Your task to perform on an android device: Search for the best rated electric lawnmower on Home Depot Image 0: 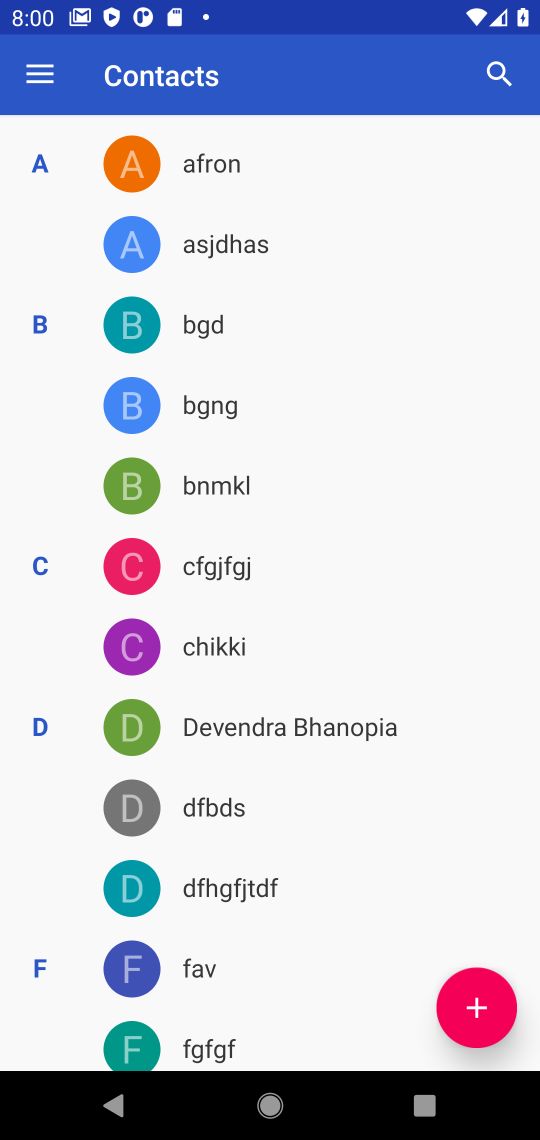
Step 0: press home button
Your task to perform on an android device: Search for the best rated electric lawnmower on Home Depot Image 1: 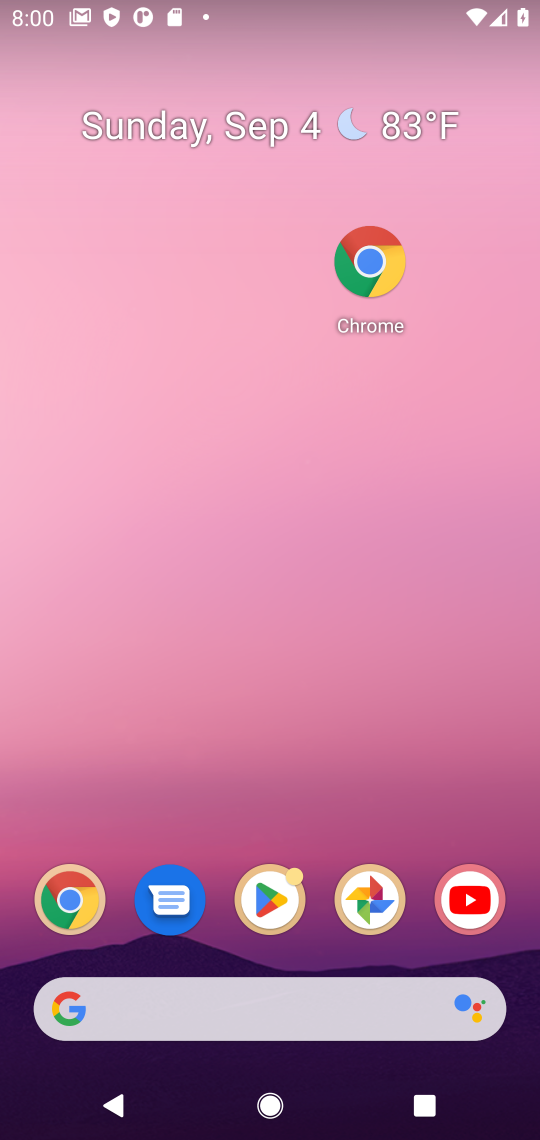
Step 1: drag from (296, 664) to (236, 272)
Your task to perform on an android device: Search for the best rated electric lawnmower on Home Depot Image 2: 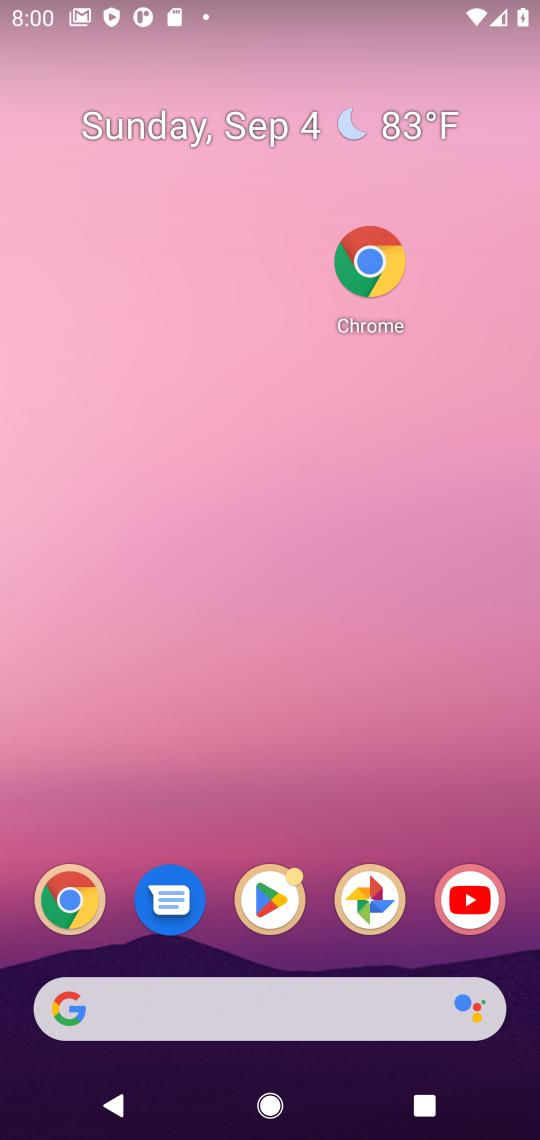
Step 2: drag from (266, 648) to (210, 278)
Your task to perform on an android device: Search for the best rated electric lawnmower on Home Depot Image 3: 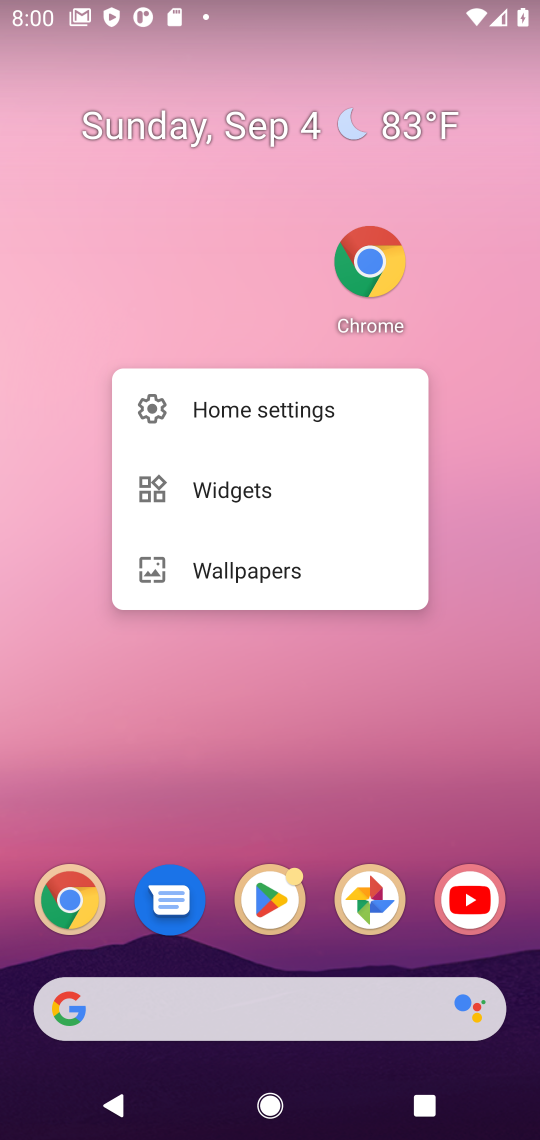
Step 3: click (316, 704)
Your task to perform on an android device: Search for the best rated electric lawnmower on Home Depot Image 4: 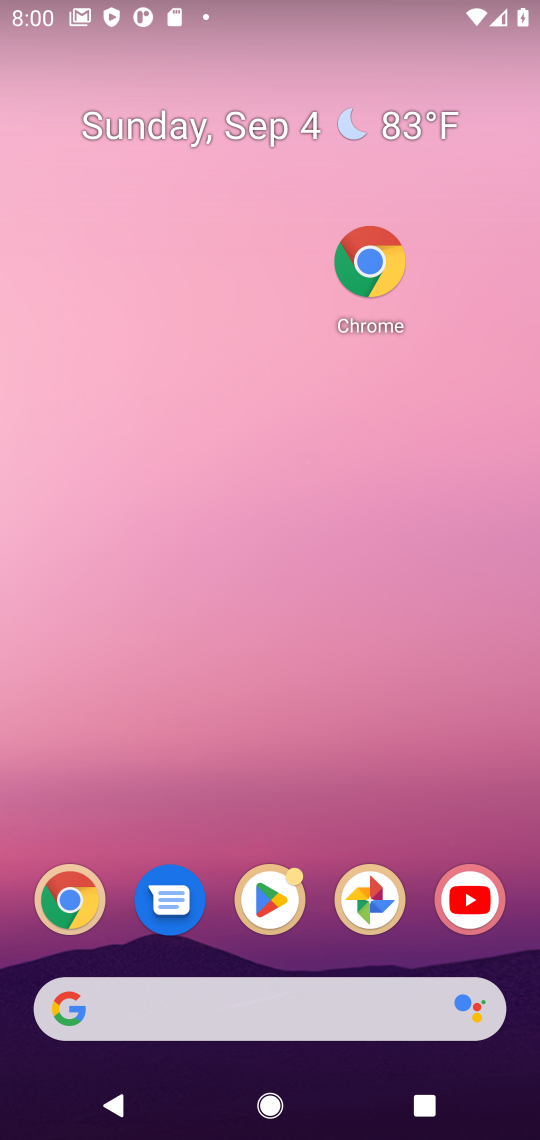
Step 4: click (126, 100)
Your task to perform on an android device: Search for the best rated electric lawnmower on Home Depot Image 5: 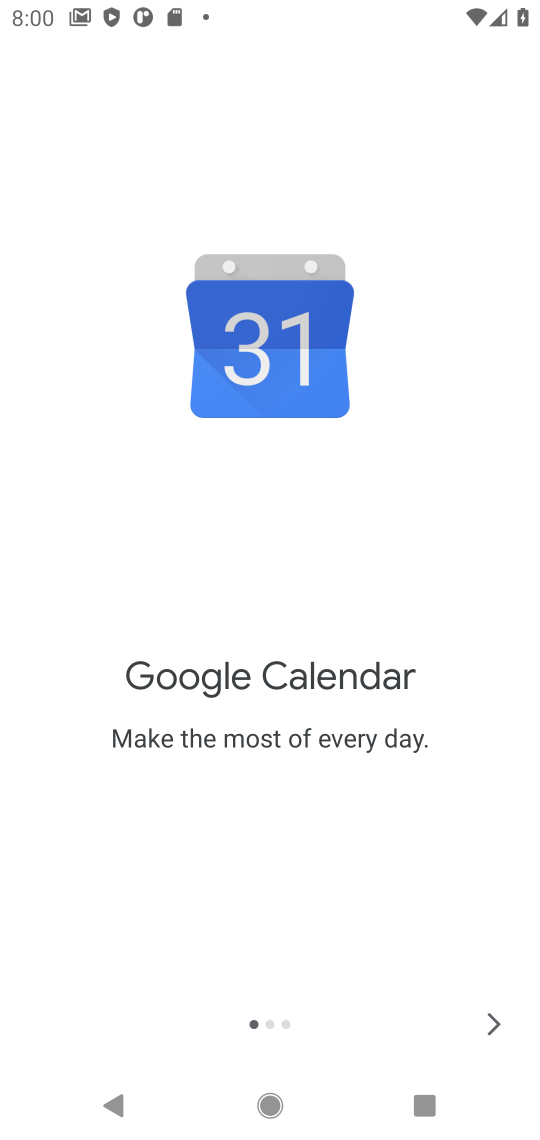
Step 5: press home button
Your task to perform on an android device: Search for the best rated electric lawnmower on Home Depot Image 6: 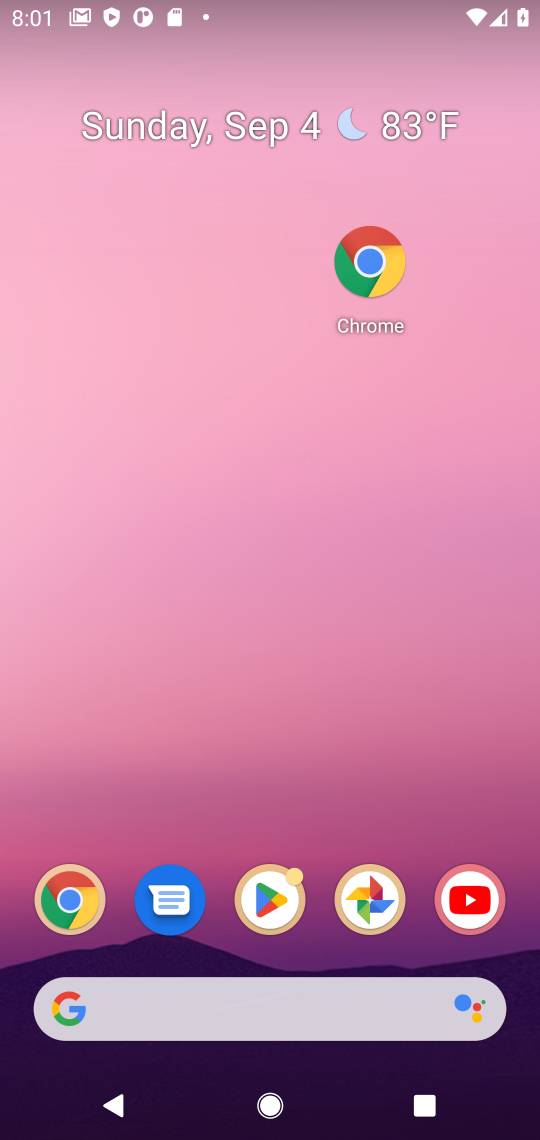
Step 6: click (374, 262)
Your task to perform on an android device: Search for the best rated electric lawnmower on Home Depot Image 7: 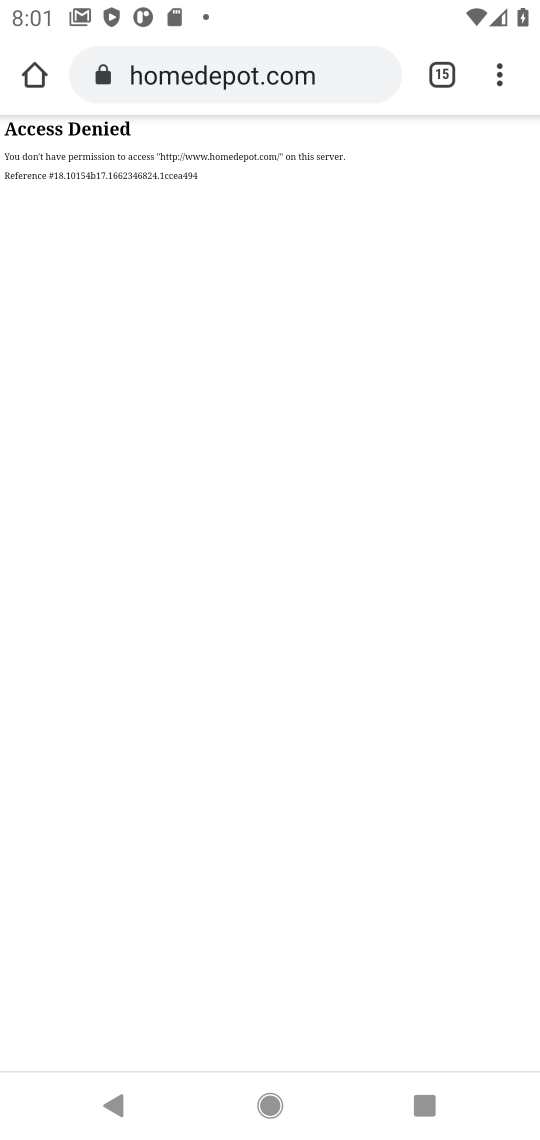
Step 7: click (446, 70)
Your task to perform on an android device: Search for the best rated electric lawnmower on Home Depot Image 8: 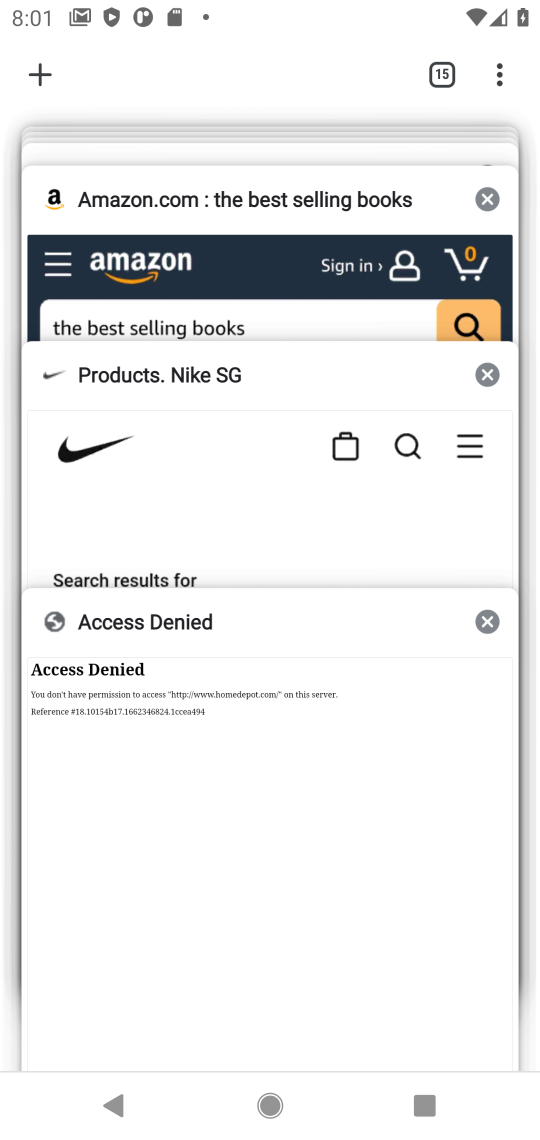
Step 8: click (22, 54)
Your task to perform on an android device: Search for the best rated electric lawnmower on Home Depot Image 9: 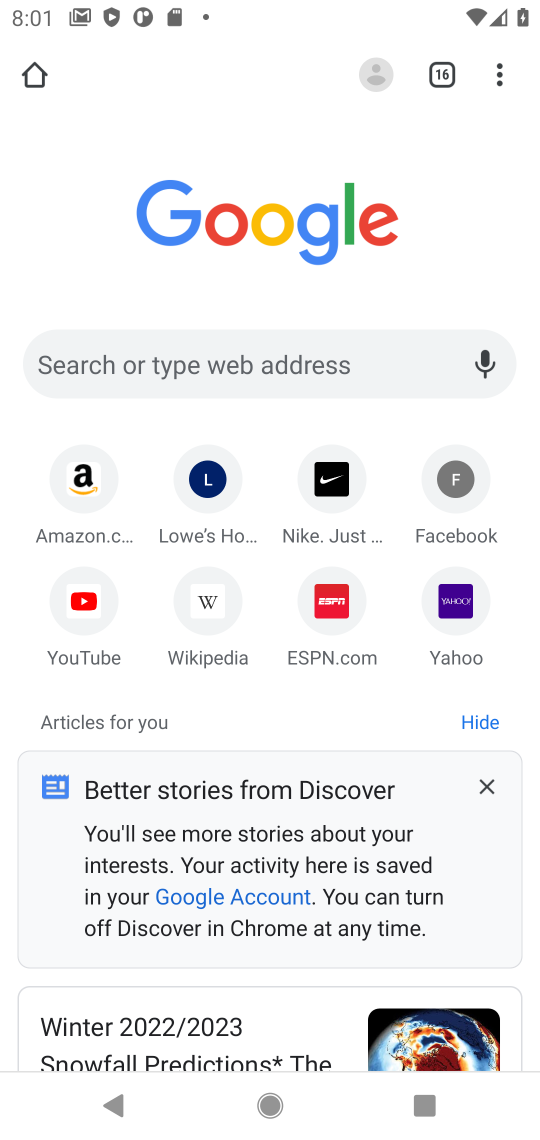
Step 9: click (264, 386)
Your task to perform on an android device: Search for the best rated electric lawnmower on Home Depot Image 10: 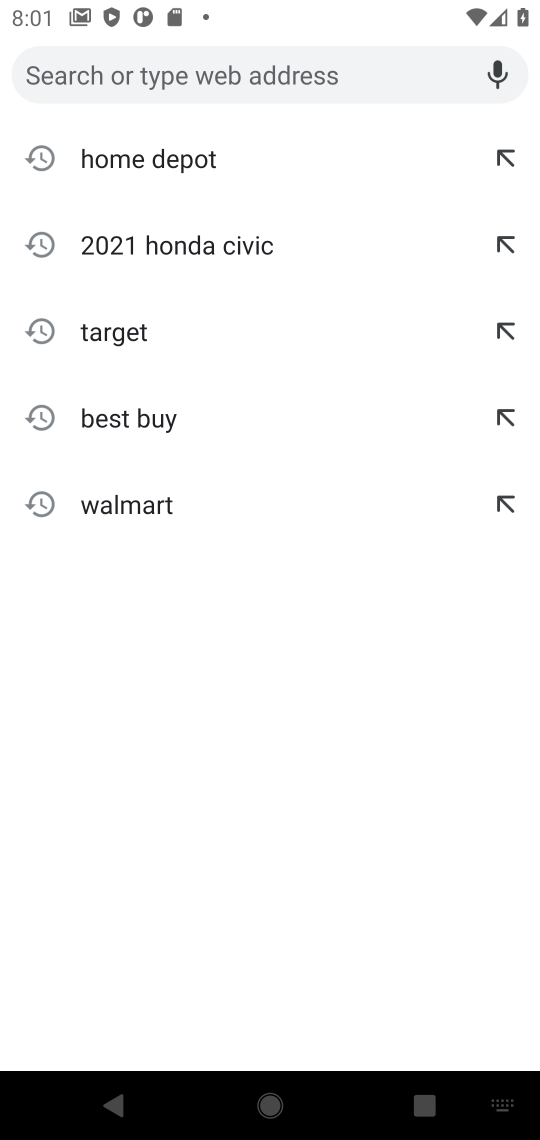
Step 10: click (121, 150)
Your task to perform on an android device: Search for the best rated electric lawnmower on Home Depot Image 11: 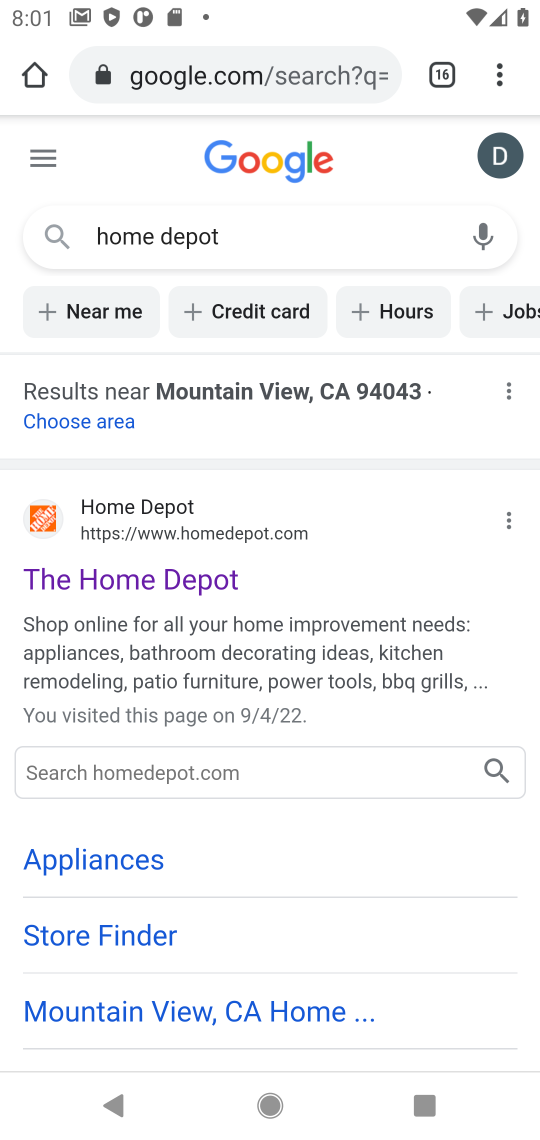
Step 11: click (66, 576)
Your task to perform on an android device: Search for the best rated electric lawnmower on Home Depot Image 12: 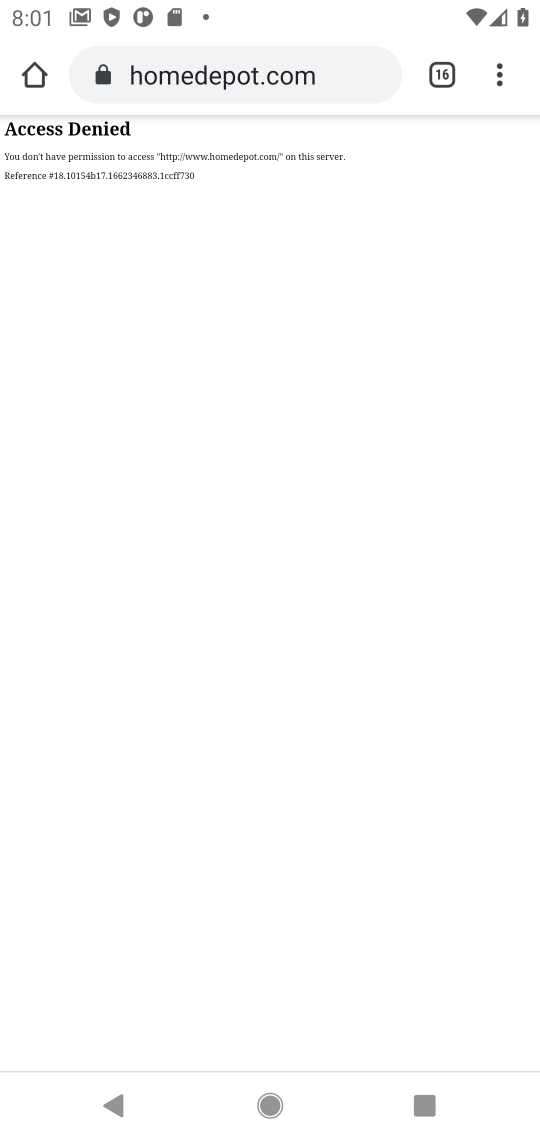
Step 12: task complete